Your task to perform on an android device: Turn on the flashlight Image 0: 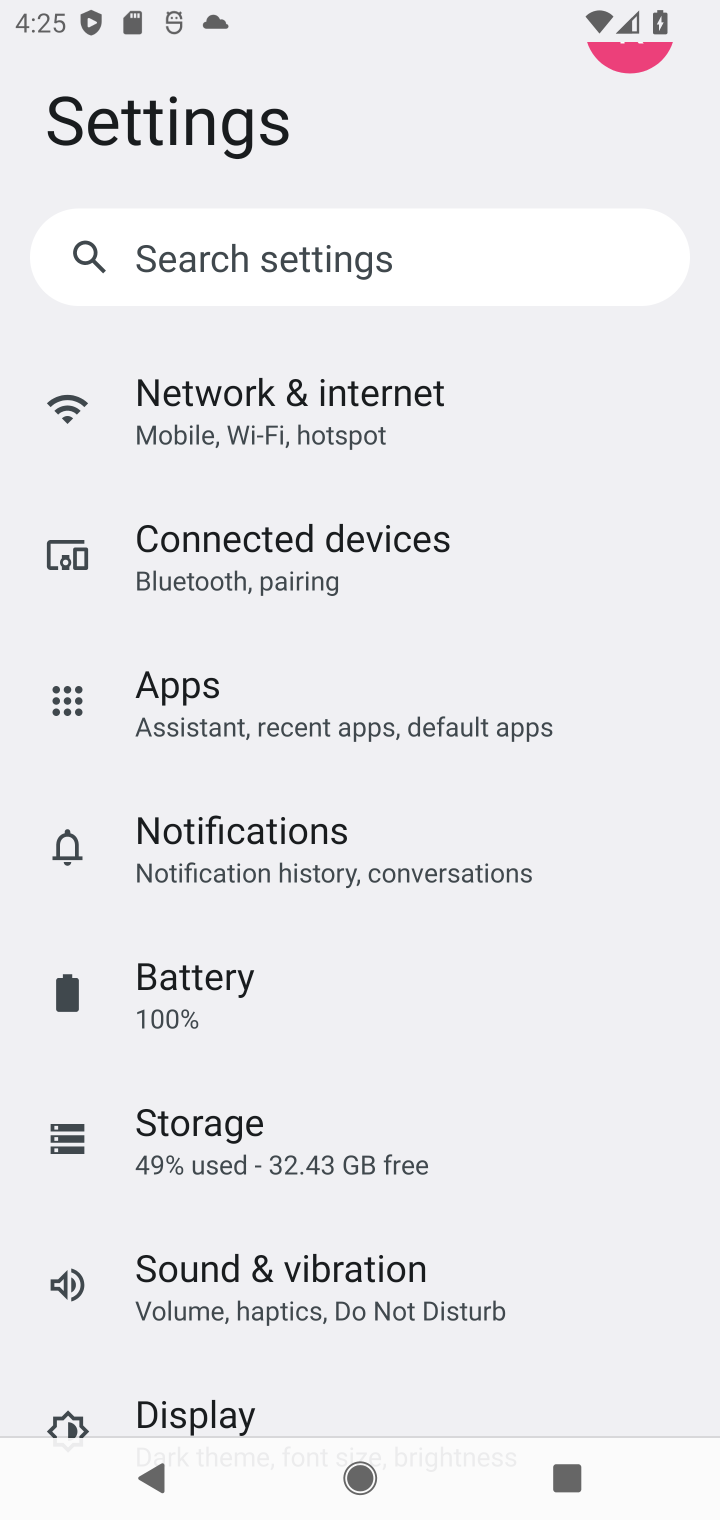
Step 0: drag from (201, 1292) to (214, 516)
Your task to perform on an android device: Turn on the flashlight Image 1: 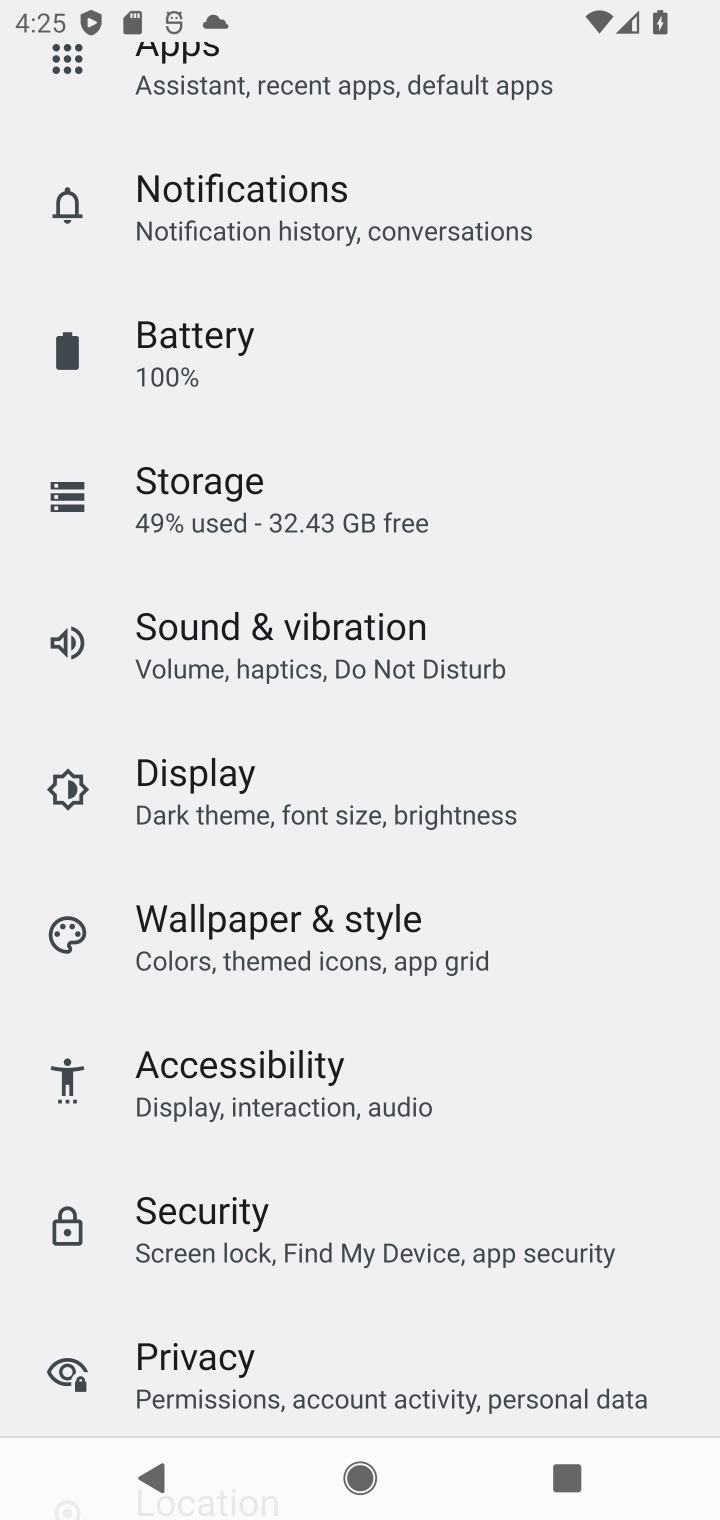
Step 1: task complete